Your task to perform on an android device: create a new album in the google photos Image 0: 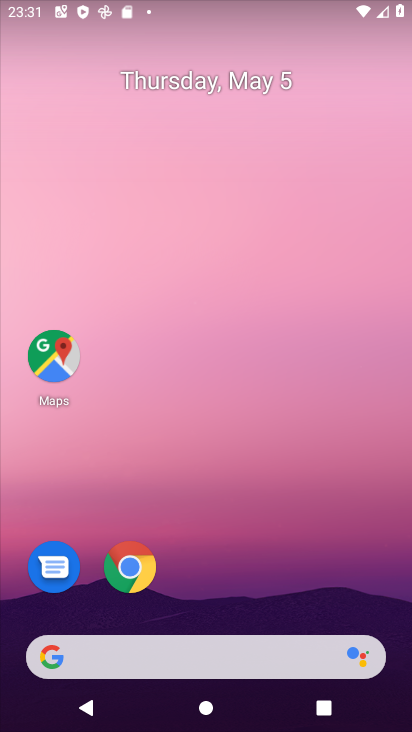
Step 0: drag from (224, 546) to (232, 259)
Your task to perform on an android device: create a new album in the google photos Image 1: 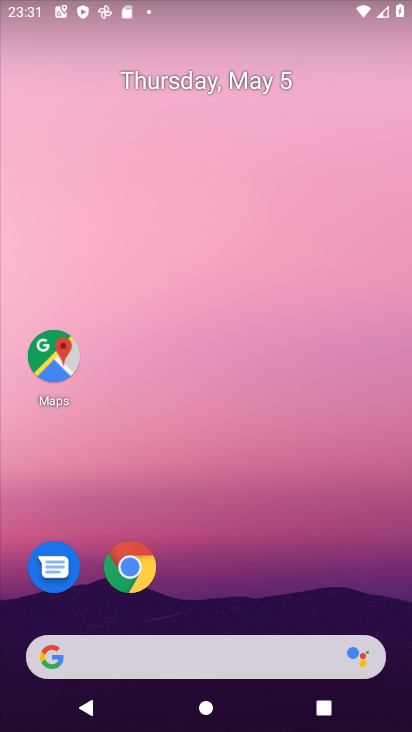
Step 1: drag from (192, 605) to (196, 155)
Your task to perform on an android device: create a new album in the google photos Image 2: 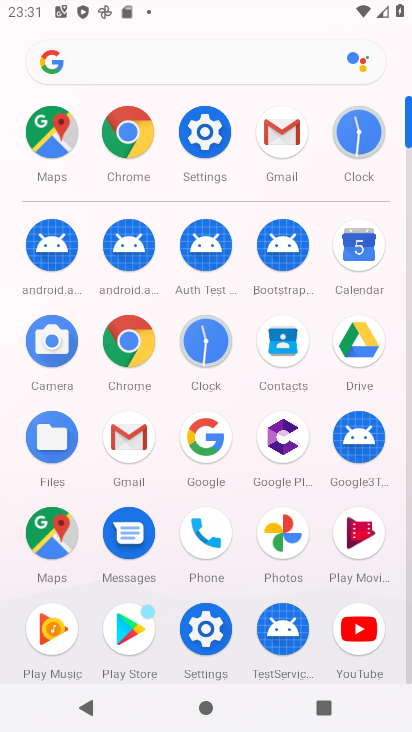
Step 2: click (268, 524)
Your task to perform on an android device: create a new album in the google photos Image 3: 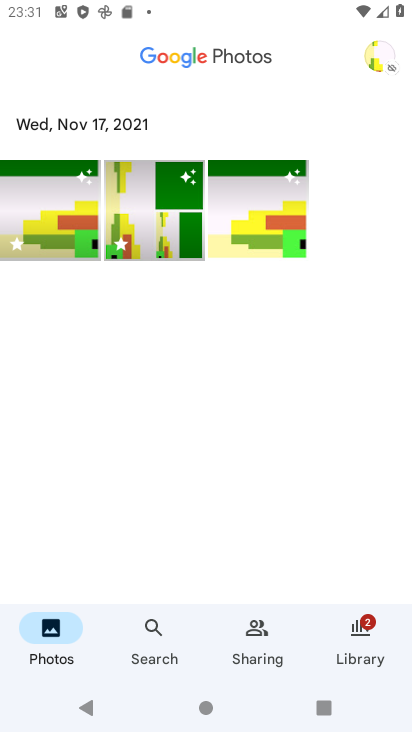
Step 3: click (364, 623)
Your task to perform on an android device: create a new album in the google photos Image 4: 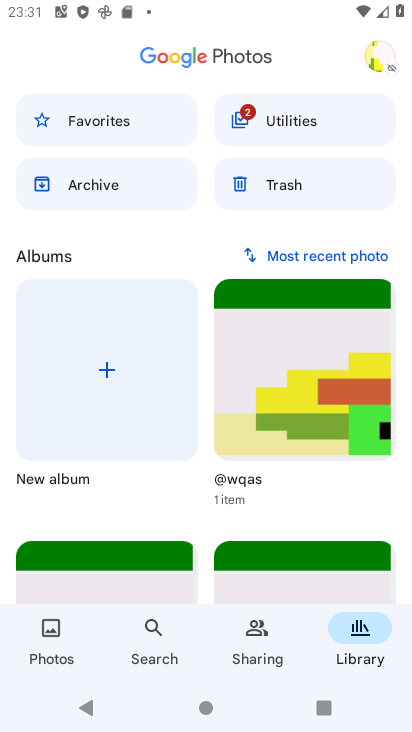
Step 4: click (150, 643)
Your task to perform on an android device: create a new album in the google photos Image 5: 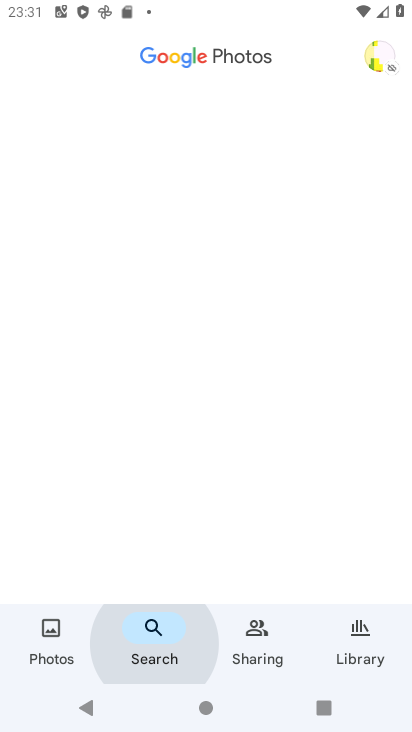
Step 5: click (33, 639)
Your task to perform on an android device: create a new album in the google photos Image 6: 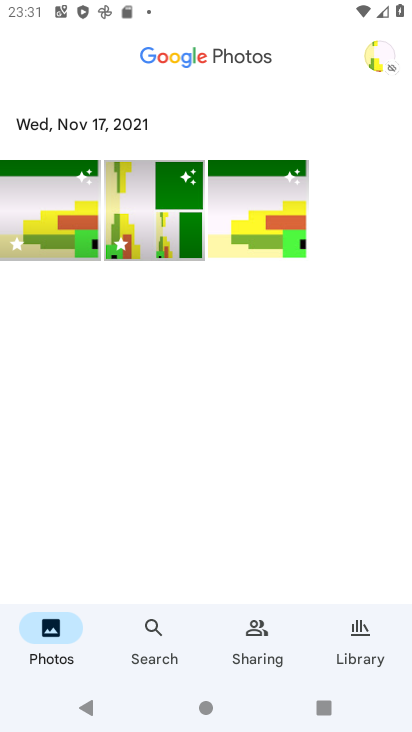
Step 6: click (372, 52)
Your task to perform on an android device: create a new album in the google photos Image 7: 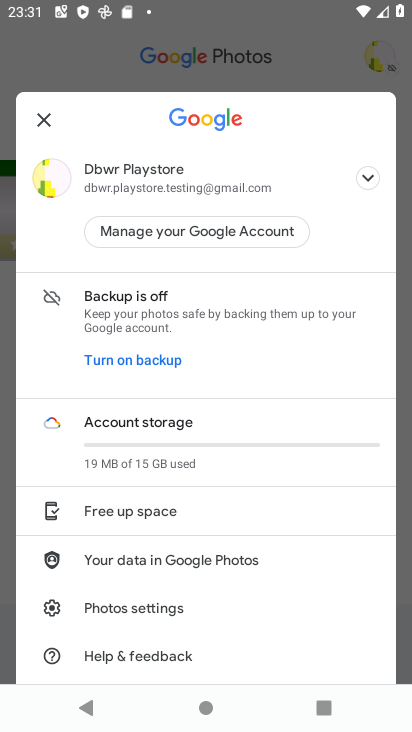
Step 7: drag from (212, 610) to (242, 200)
Your task to perform on an android device: create a new album in the google photos Image 8: 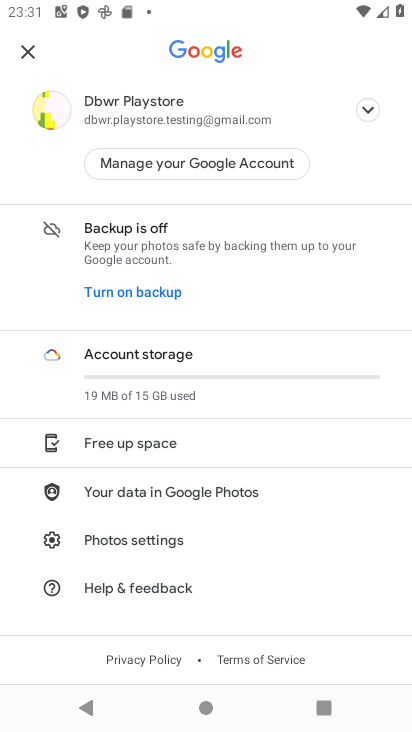
Step 8: click (31, 55)
Your task to perform on an android device: create a new album in the google photos Image 9: 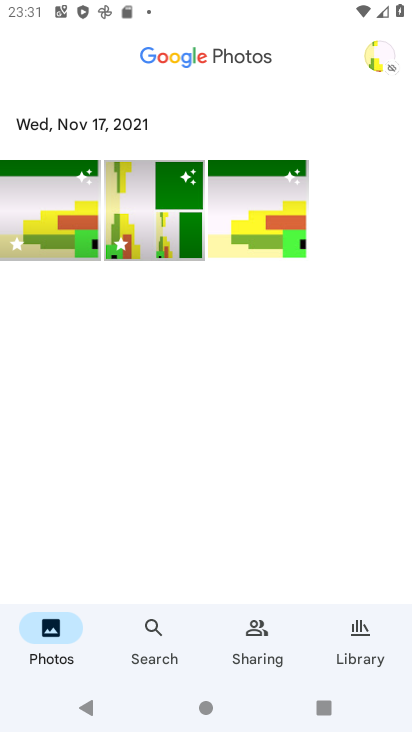
Step 9: click (155, 629)
Your task to perform on an android device: create a new album in the google photos Image 10: 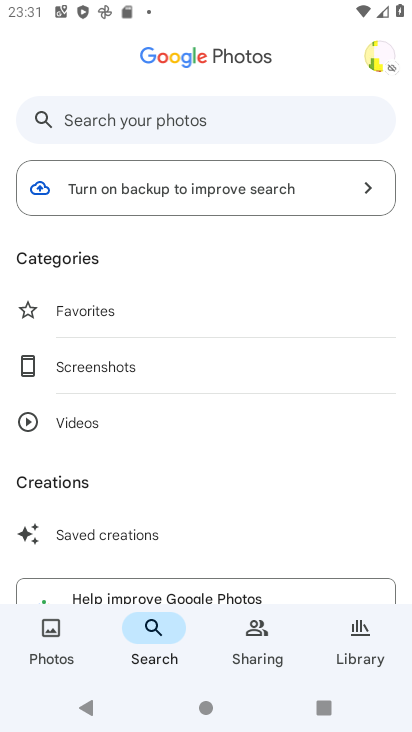
Step 10: drag from (221, 501) to (203, 243)
Your task to perform on an android device: create a new album in the google photos Image 11: 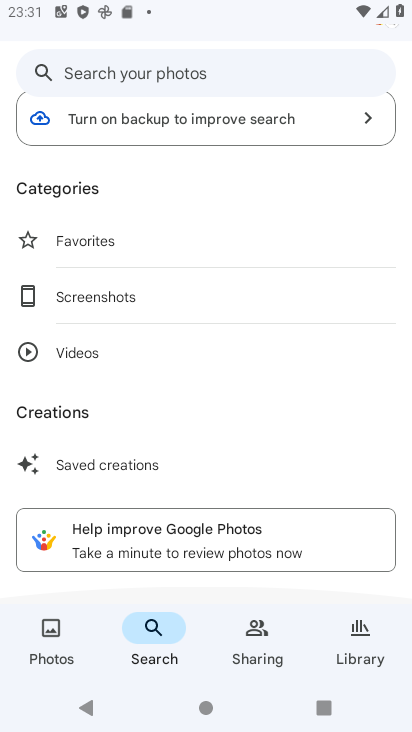
Step 11: drag from (203, 465) to (213, 231)
Your task to perform on an android device: create a new album in the google photos Image 12: 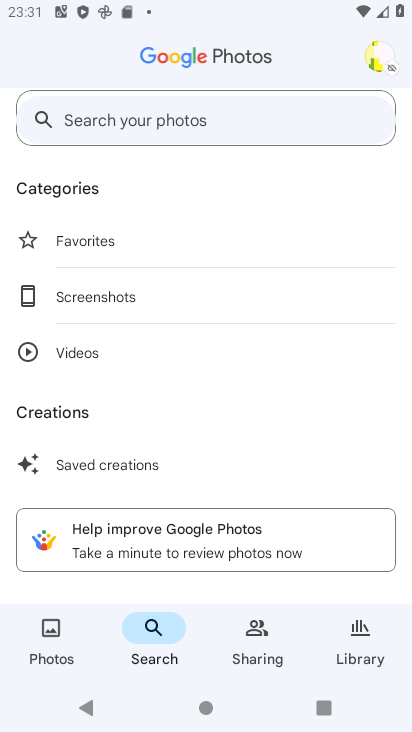
Step 12: click (66, 617)
Your task to perform on an android device: create a new album in the google photos Image 13: 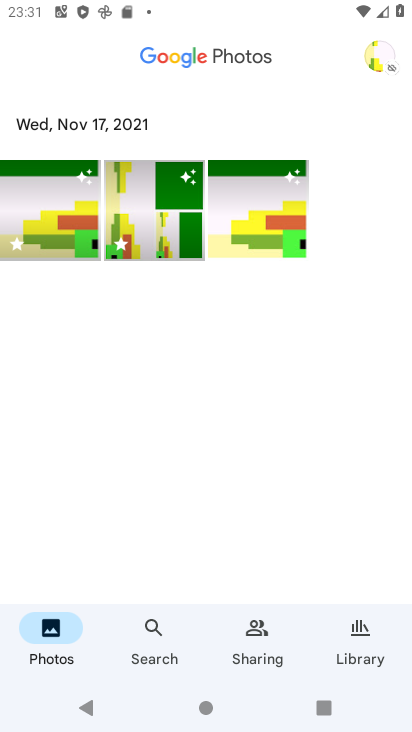
Step 13: click (362, 627)
Your task to perform on an android device: create a new album in the google photos Image 14: 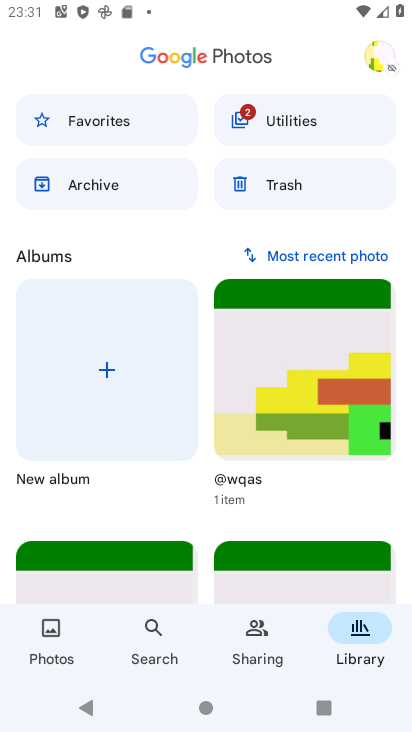
Step 14: click (111, 416)
Your task to perform on an android device: create a new album in the google photos Image 15: 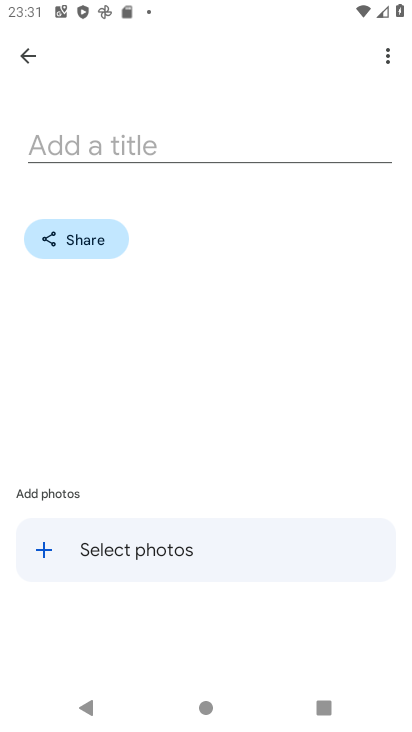
Step 15: click (112, 151)
Your task to perform on an android device: create a new album in the google photos Image 16: 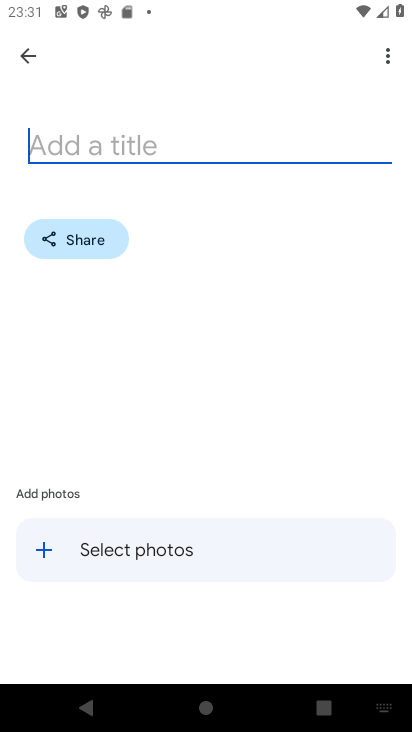
Step 16: type "fghb"
Your task to perform on an android device: create a new album in the google photos Image 17: 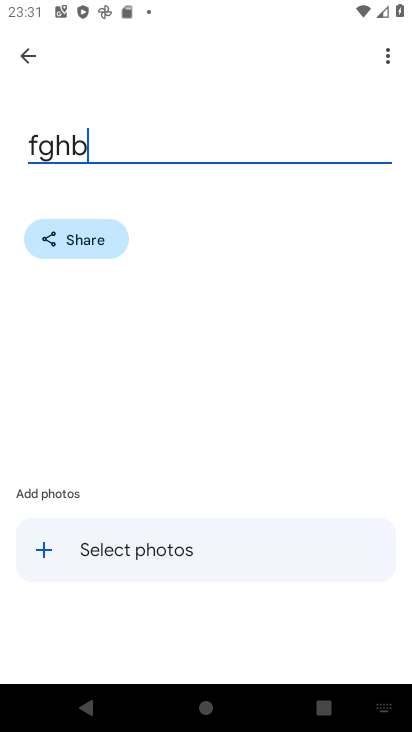
Step 17: click (52, 548)
Your task to perform on an android device: create a new album in the google photos Image 18: 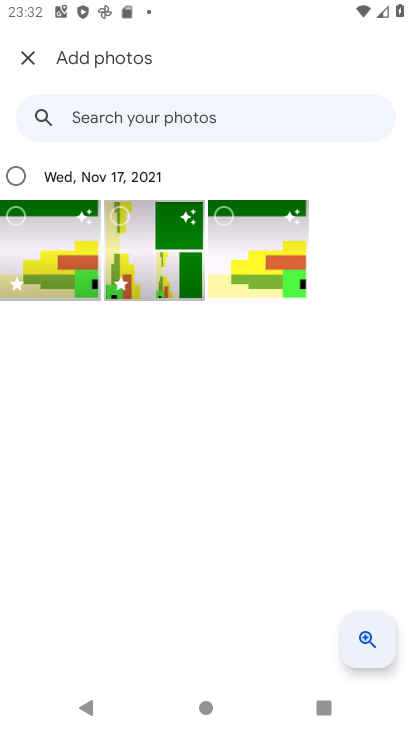
Step 18: click (47, 286)
Your task to perform on an android device: create a new album in the google photos Image 19: 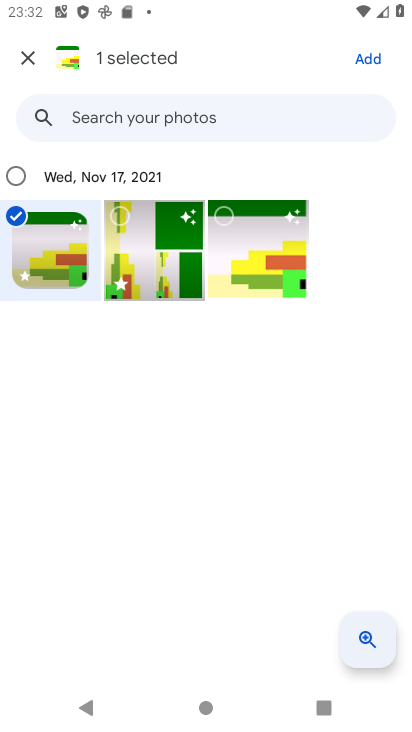
Step 19: click (368, 63)
Your task to perform on an android device: create a new album in the google photos Image 20: 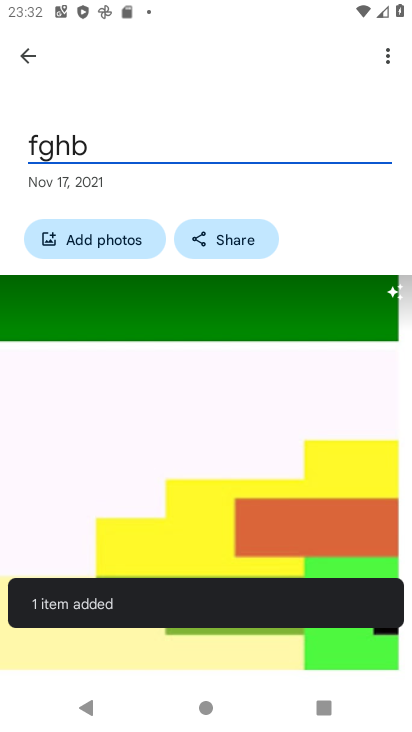
Step 20: task complete